Your task to perform on an android device: Open Google Maps Image 0: 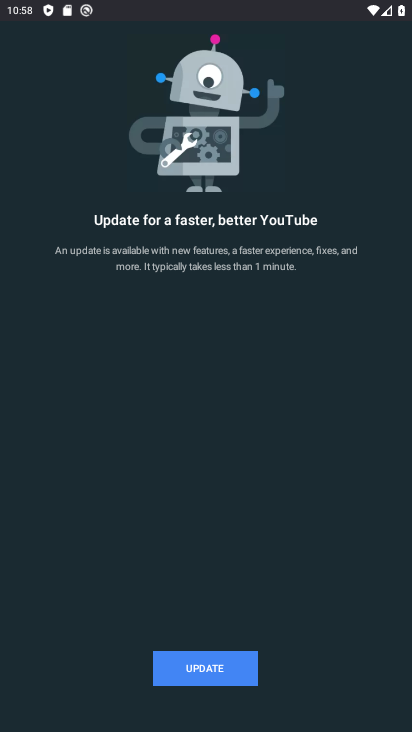
Step 0: press home button
Your task to perform on an android device: Open Google Maps Image 1: 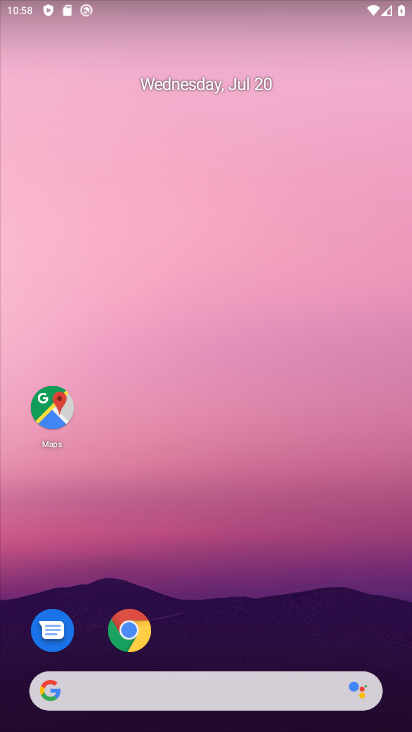
Step 1: drag from (210, 693) to (279, 66)
Your task to perform on an android device: Open Google Maps Image 2: 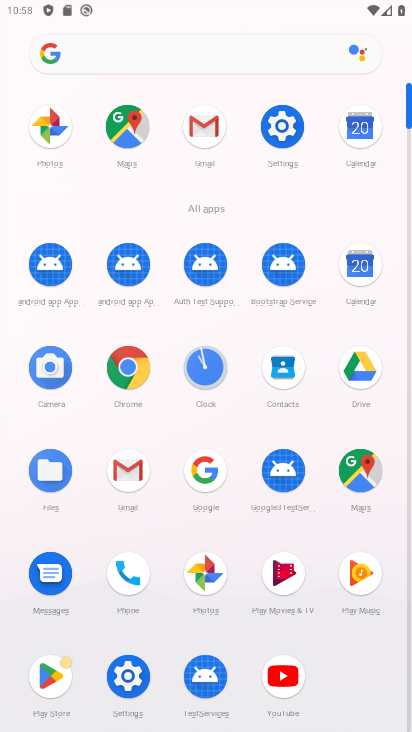
Step 2: click (128, 131)
Your task to perform on an android device: Open Google Maps Image 3: 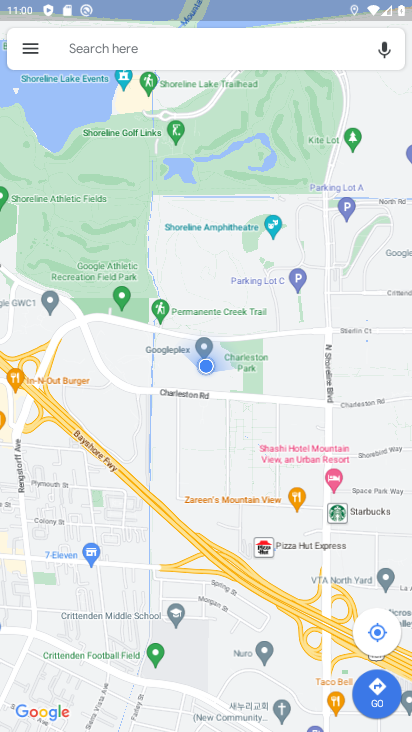
Step 3: task complete